Your task to perform on an android device: toggle priority inbox in the gmail app Image 0: 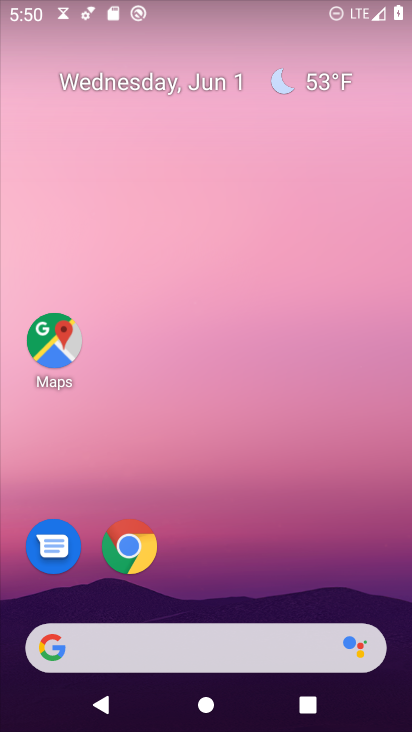
Step 0: drag from (248, 566) to (233, 6)
Your task to perform on an android device: toggle priority inbox in the gmail app Image 1: 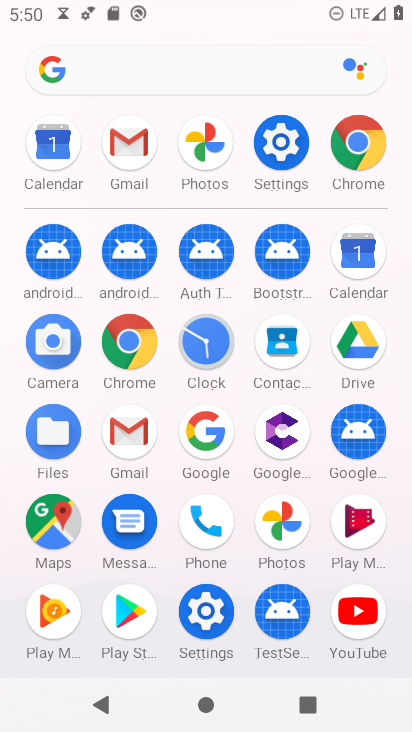
Step 1: drag from (18, 557) to (11, 239)
Your task to perform on an android device: toggle priority inbox in the gmail app Image 2: 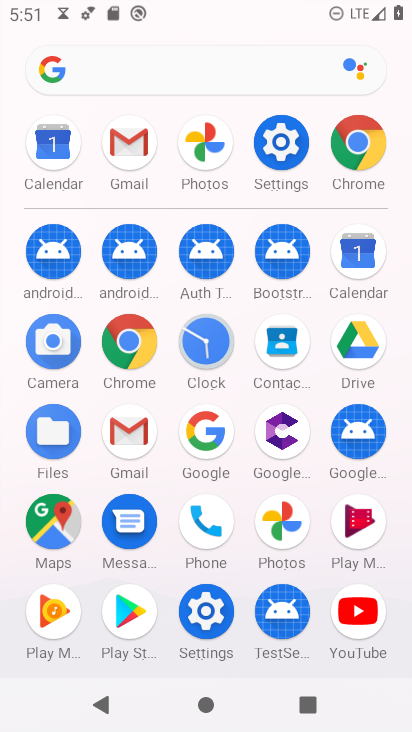
Step 2: click (131, 427)
Your task to perform on an android device: toggle priority inbox in the gmail app Image 3: 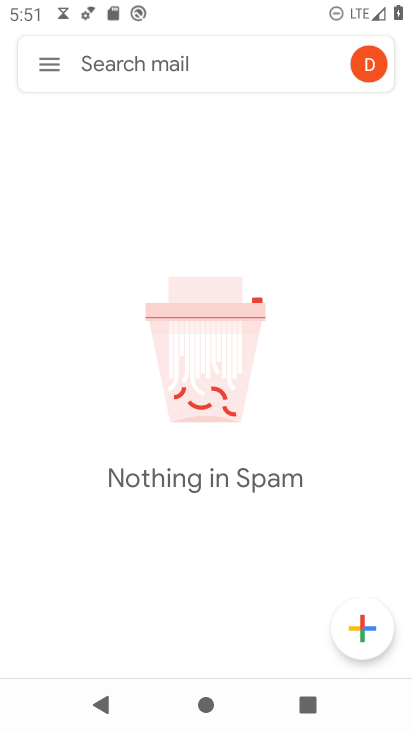
Step 3: click (37, 49)
Your task to perform on an android device: toggle priority inbox in the gmail app Image 4: 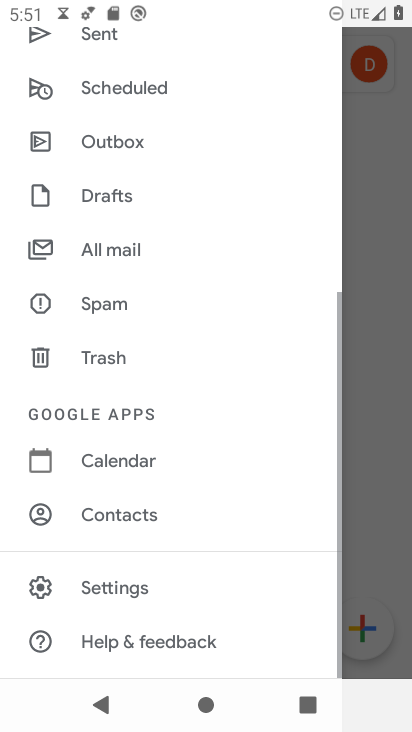
Step 4: click (173, 569)
Your task to perform on an android device: toggle priority inbox in the gmail app Image 5: 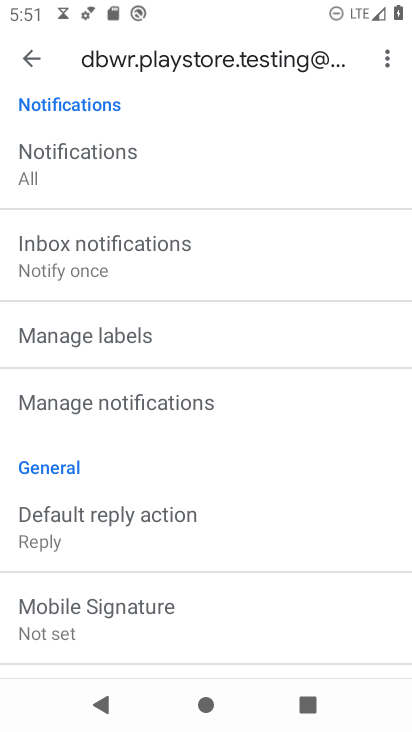
Step 5: drag from (193, 571) to (195, 183)
Your task to perform on an android device: toggle priority inbox in the gmail app Image 6: 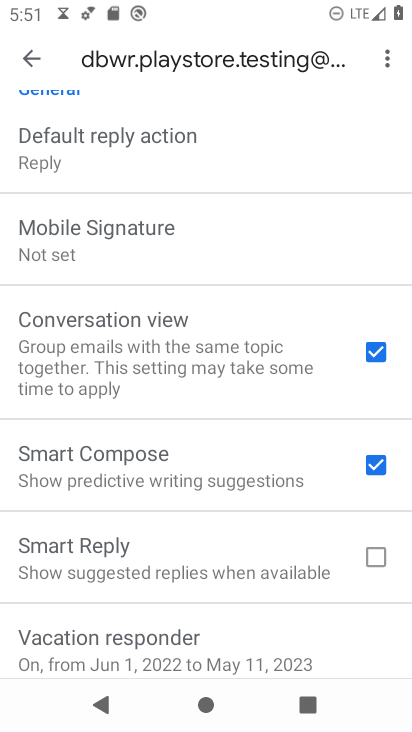
Step 6: drag from (197, 187) to (224, 643)
Your task to perform on an android device: toggle priority inbox in the gmail app Image 7: 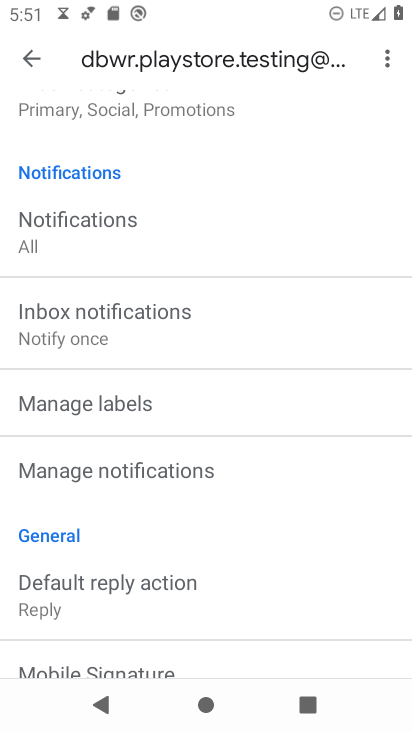
Step 7: drag from (154, 104) to (218, 470)
Your task to perform on an android device: toggle priority inbox in the gmail app Image 8: 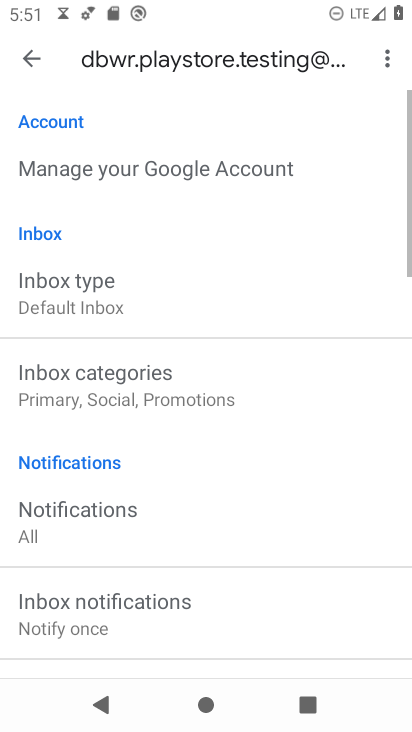
Step 8: click (129, 275)
Your task to perform on an android device: toggle priority inbox in the gmail app Image 9: 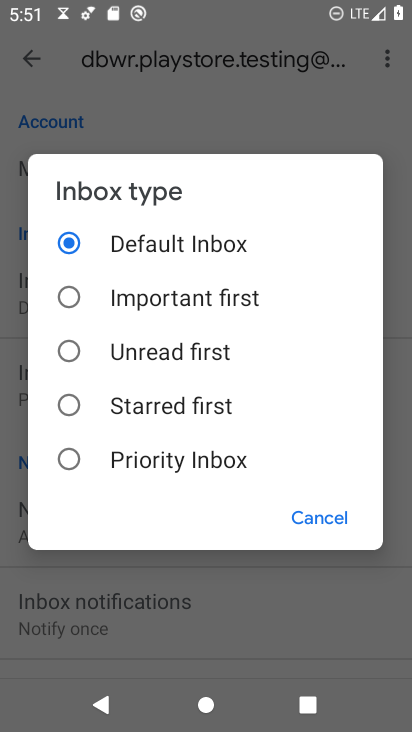
Step 9: click (145, 455)
Your task to perform on an android device: toggle priority inbox in the gmail app Image 10: 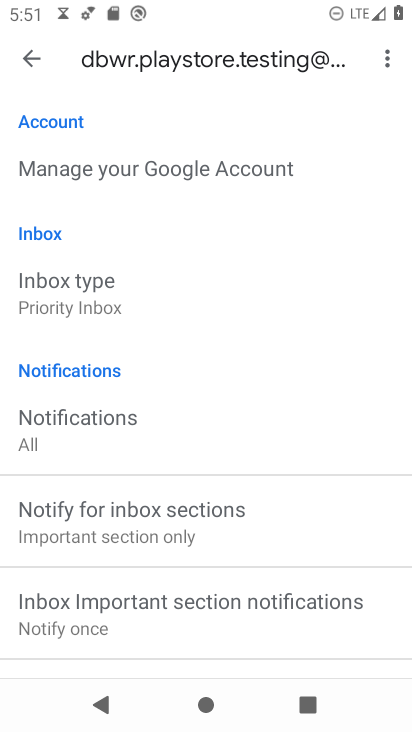
Step 10: task complete